Your task to perform on an android device: Show me productivity apps on the Play Store Image 0: 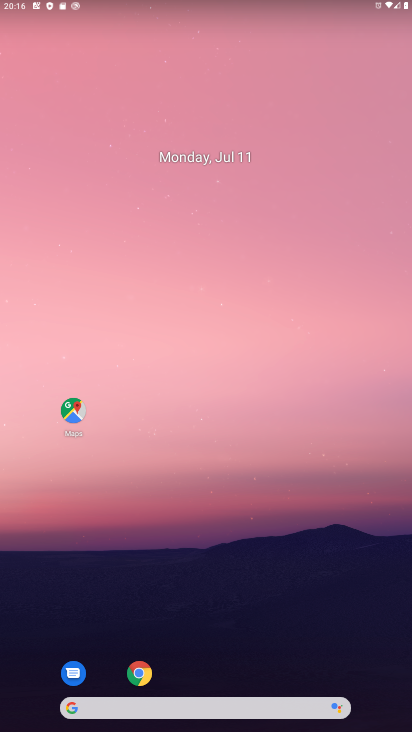
Step 0: drag from (222, 673) to (303, 27)
Your task to perform on an android device: Show me productivity apps on the Play Store Image 1: 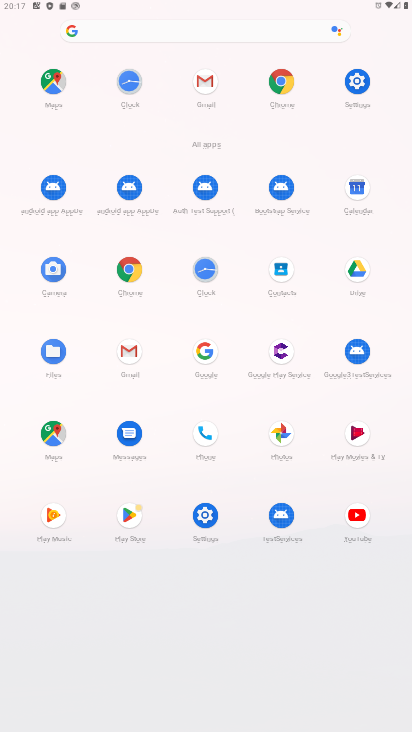
Step 1: click (129, 512)
Your task to perform on an android device: Show me productivity apps on the Play Store Image 2: 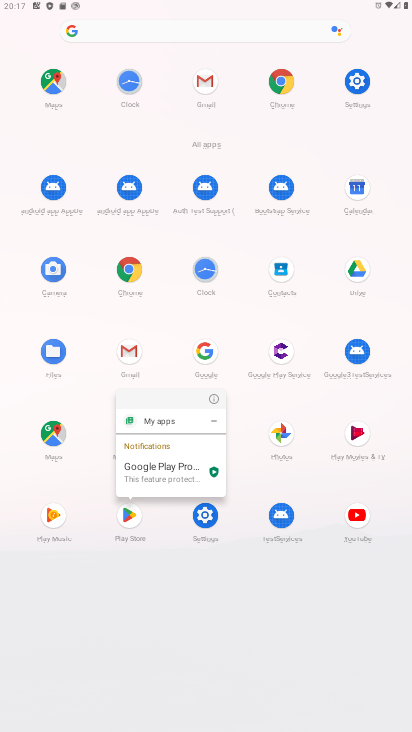
Step 2: click (129, 516)
Your task to perform on an android device: Show me productivity apps on the Play Store Image 3: 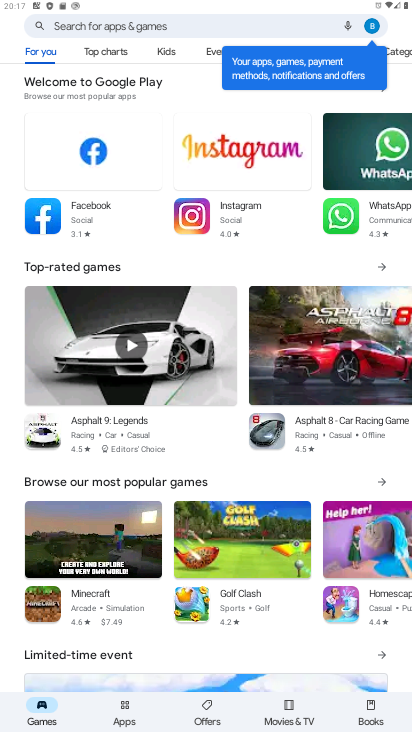
Step 3: click (119, 707)
Your task to perform on an android device: Show me productivity apps on the Play Store Image 4: 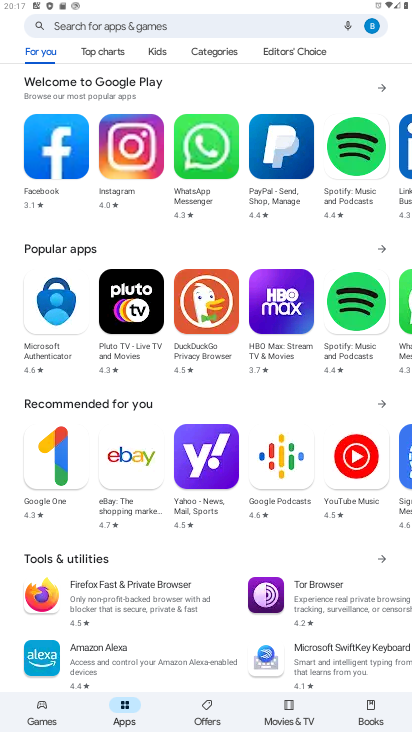
Step 4: click (217, 52)
Your task to perform on an android device: Show me productivity apps on the Play Store Image 5: 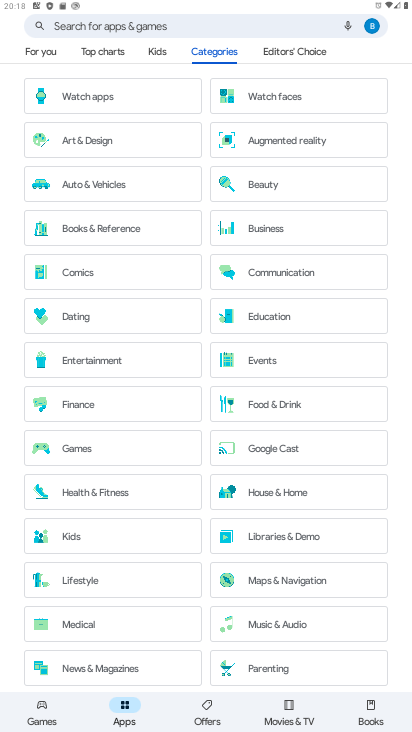
Step 5: drag from (203, 593) to (222, 310)
Your task to perform on an android device: Show me productivity apps on the Play Store Image 6: 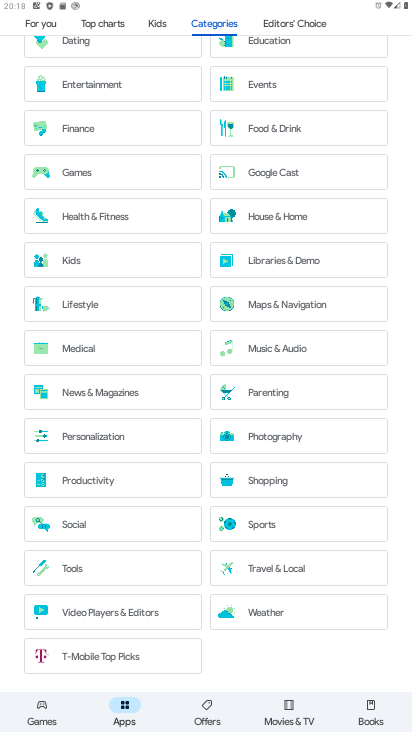
Step 6: click (103, 477)
Your task to perform on an android device: Show me productivity apps on the Play Store Image 7: 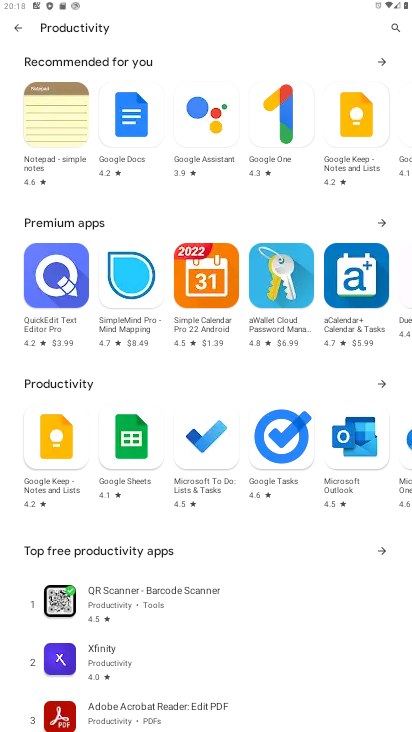
Step 7: task complete